Your task to perform on an android device: Open accessibility settings Image 0: 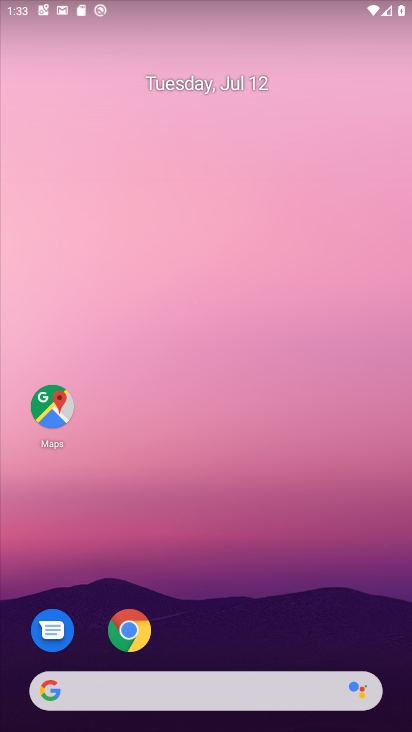
Step 0: drag from (246, 339) to (245, 161)
Your task to perform on an android device: Open accessibility settings Image 1: 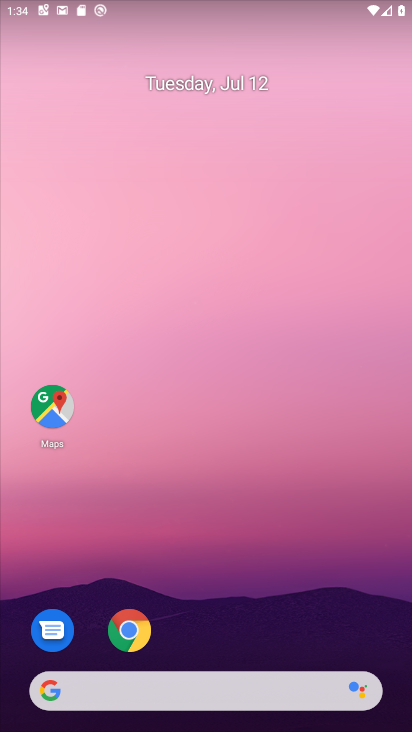
Step 1: drag from (272, 641) to (270, 322)
Your task to perform on an android device: Open accessibility settings Image 2: 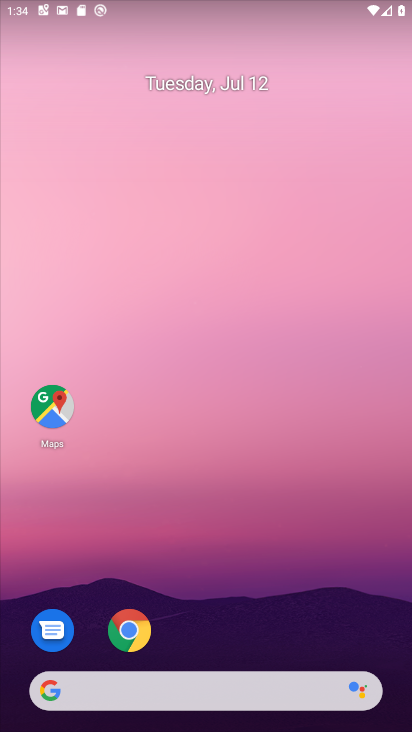
Step 2: drag from (218, 491) to (223, 8)
Your task to perform on an android device: Open accessibility settings Image 3: 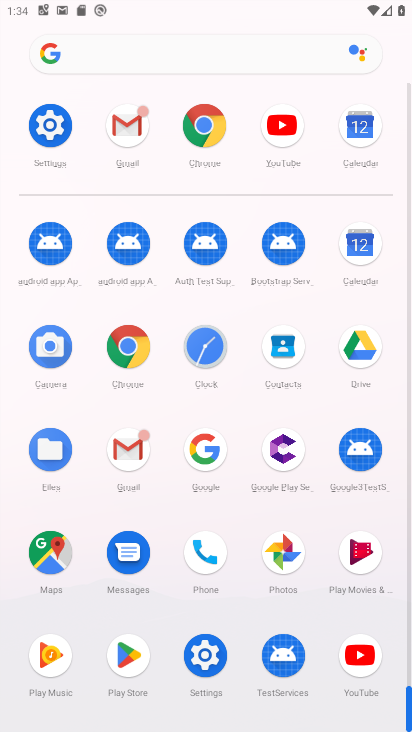
Step 3: click (47, 120)
Your task to perform on an android device: Open accessibility settings Image 4: 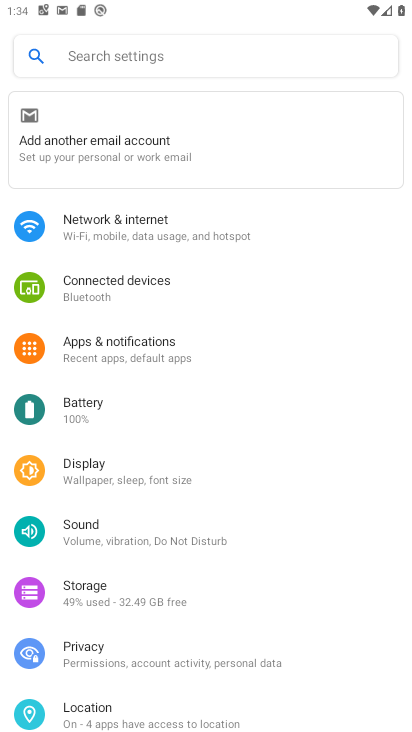
Step 4: drag from (89, 488) to (98, 295)
Your task to perform on an android device: Open accessibility settings Image 5: 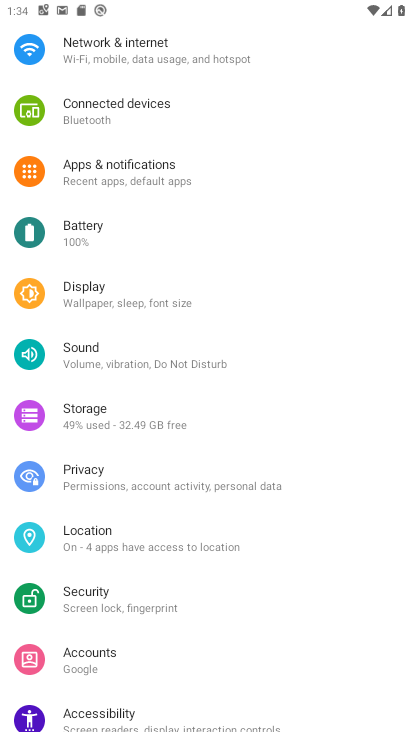
Step 5: drag from (102, 539) to (116, 407)
Your task to perform on an android device: Open accessibility settings Image 6: 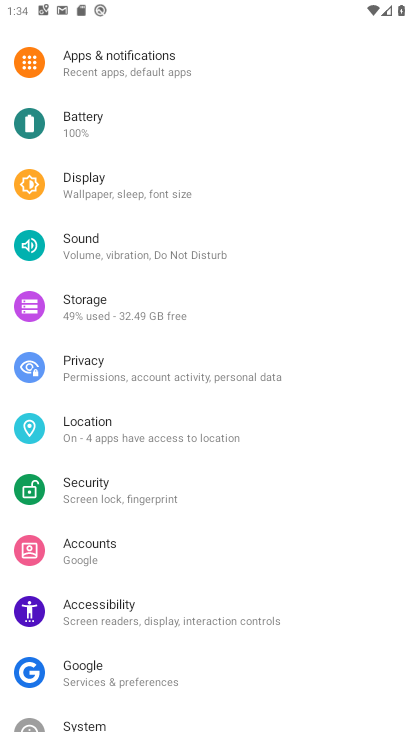
Step 6: drag from (112, 542) to (145, 284)
Your task to perform on an android device: Open accessibility settings Image 7: 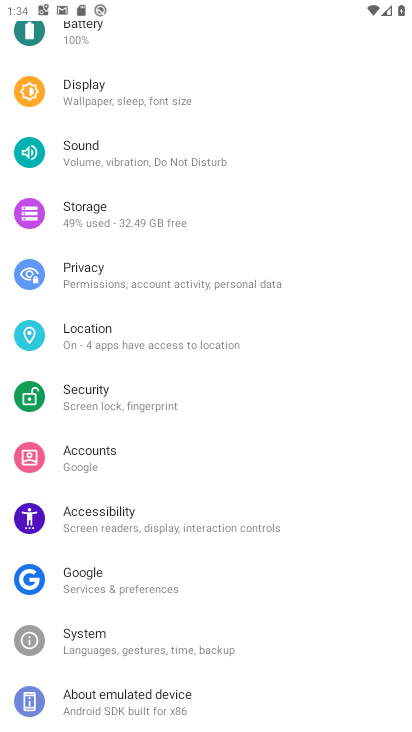
Step 7: click (167, 519)
Your task to perform on an android device: Open accessibility settings Image 8: 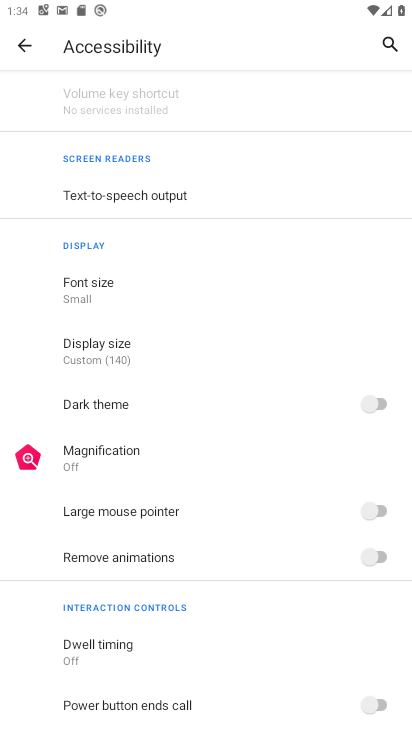
Step 8: task complete